Your task to perform on an android device: turn off sleep mode Image 0: 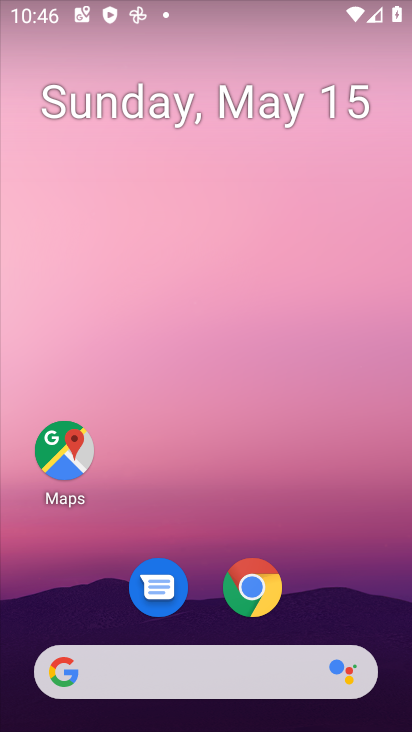
Step 0: drag from (381, 659) to (270, 55)
Your task to perform on an android device: turn off sleep mode Image 1: 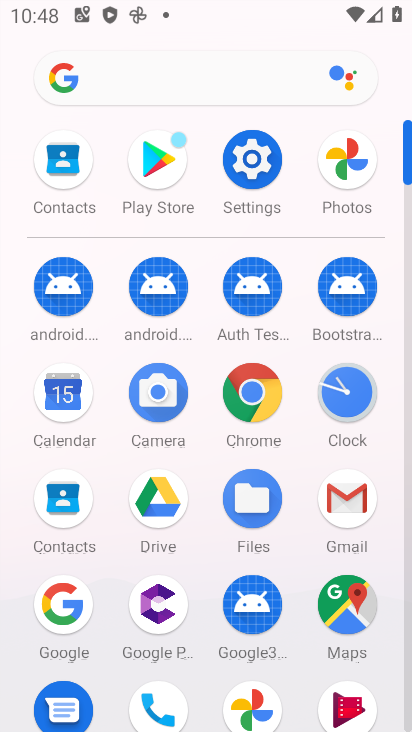
Step 1: click (249, 176)
Your task to perform on an android device: turn off sleep mode Image 2: 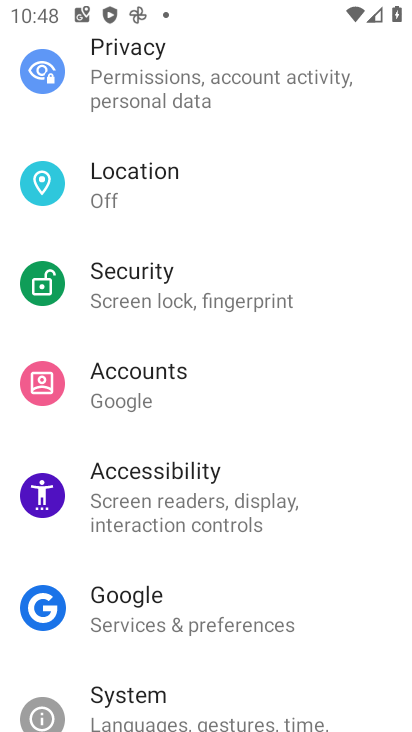
Step 2: task complete